Your task to perform on an android device: open device folders in google photos Image 0: 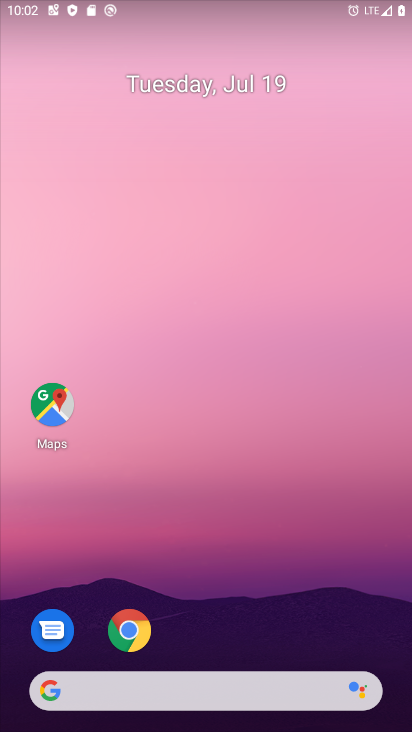
Step 0: drag from (197, 632) to (223, 26)
Your task to perform on an android device: open device folders in google photos Image 1: 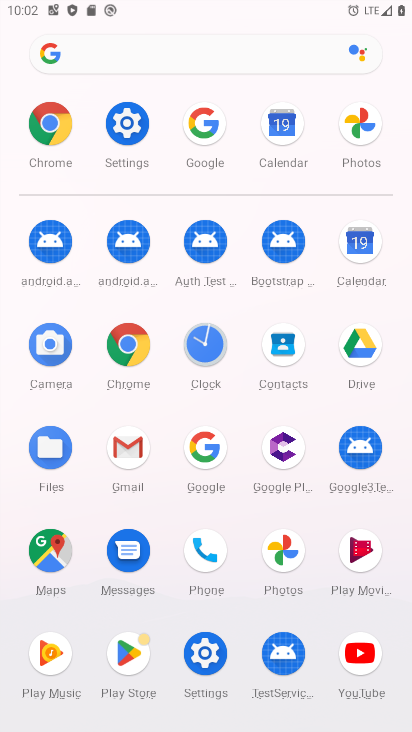
Step 1: click (358, 124)
Your task to perform on an android device: open device folders in google photos Image 2: 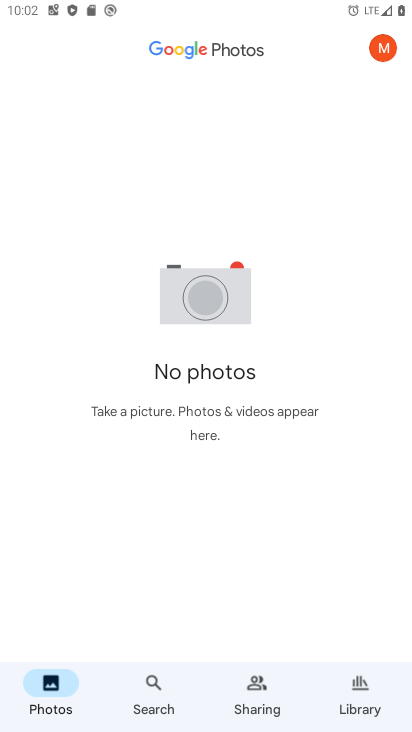
Step 2: task complete